Your task to perform on an android device: Go to Android settings Image 0: 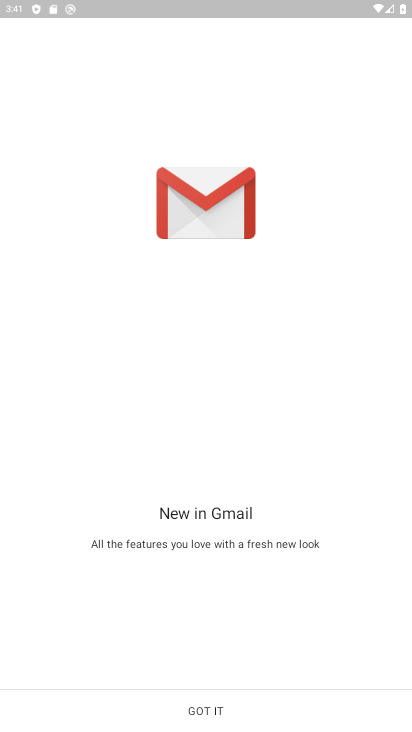
Step 0: press home button
Your task to perform on an android device: Go to Android settings Image 1: 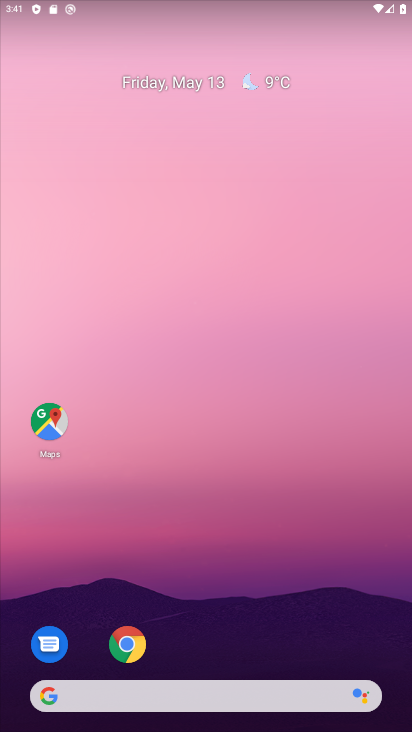
Step 1: drag from (294, 629) to (321, 209)
Your task to perform on an android device: Go to Android settings Image 2: 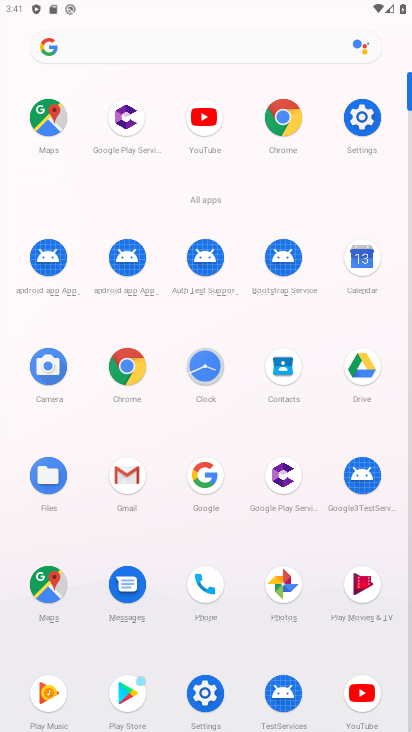
Step 2: click (360, 135)
Your task to perform on an android device: Go to Android settings Image 3: 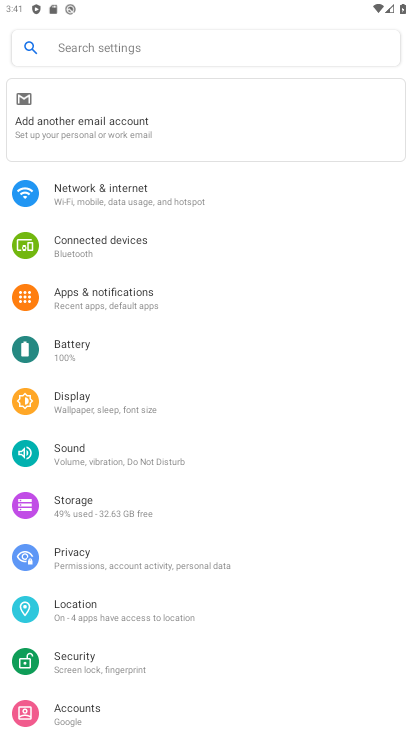
Step 3: drag from (120, 569) to (131, 239)
Your task to perform on an android device: Go to Android settings Image 4: 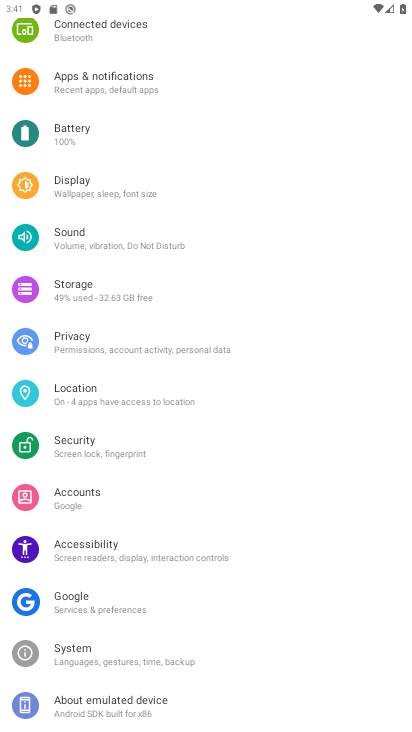
Step 4: click (87, 712)
Your task to perform on an android device: Go to Android settings Image 5: 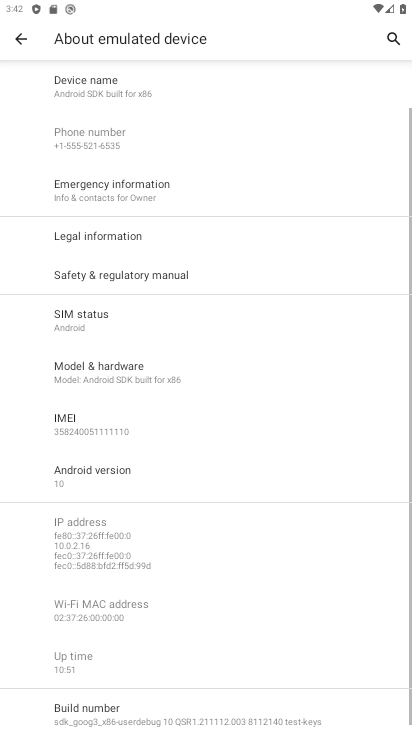
Step 5: click (65, 419)
Your task to perform on an android device: Go to Android settings Image 6: 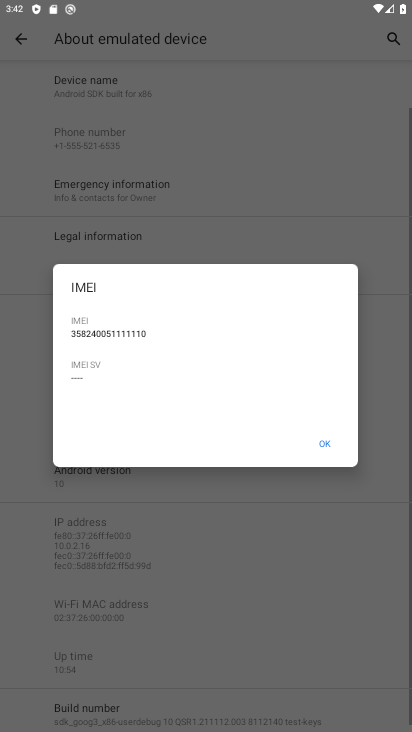
Step 6: click (322, 442)
Your task to perform on an android device: Go to Android settings Image 7: 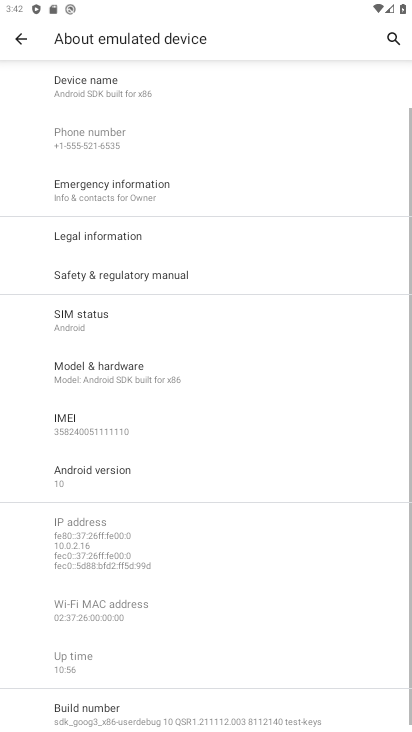
Step 7: click (102, 477)
Your task to perform on an android device: Go to Android settings Image 8: 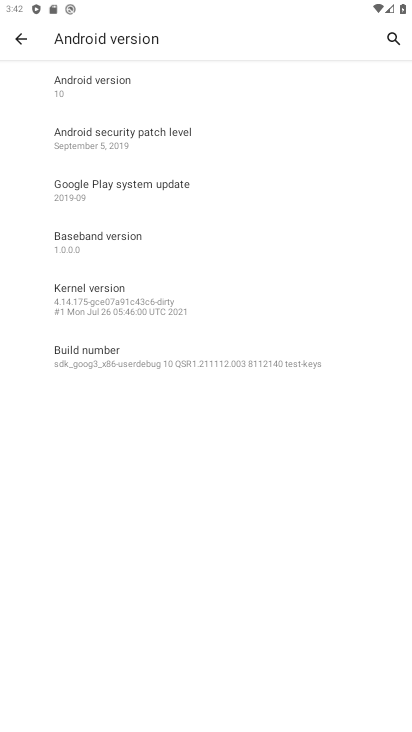
Step 8: task complete